Your task to perform on an android device: empty trash in the gmail app Image 0: 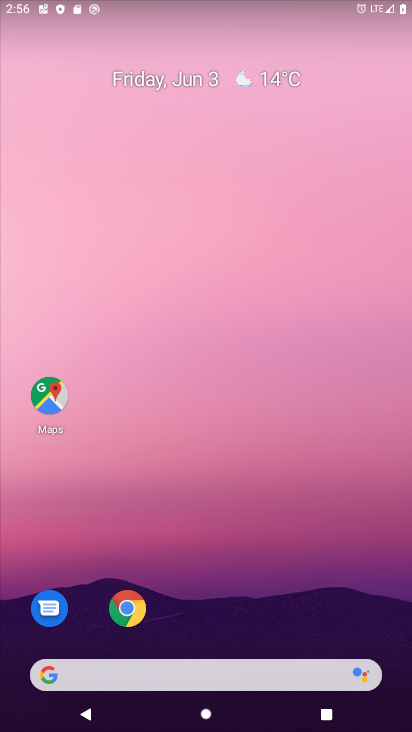
Step 0: drag from (164, 651) to (128, 52)
Your task to perform on an android device: empty trash in the gmail app Image 1: 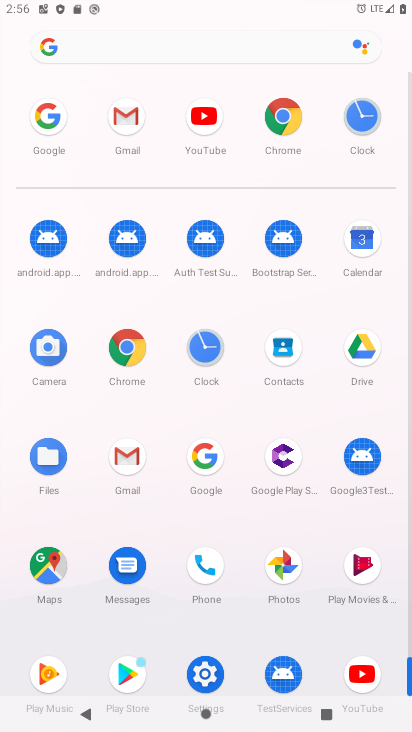
Step 1: click (122, 459)
Your task to perform on an android device: empty trash in the gmail app Image 2: 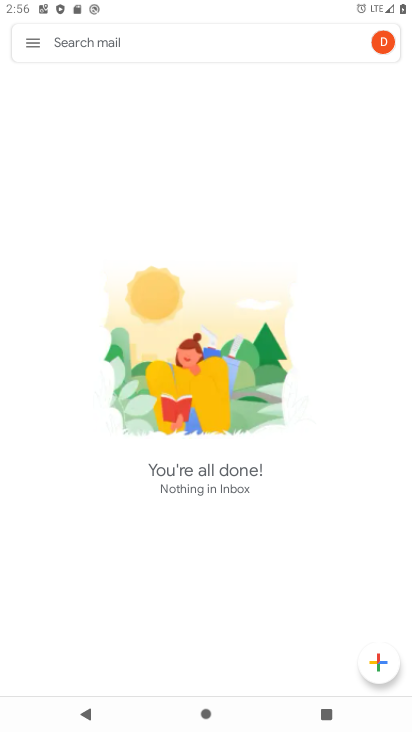
Step 2: click (33, 43)
Your task to perform on an android device: empty trash in the gmail app Image 3: 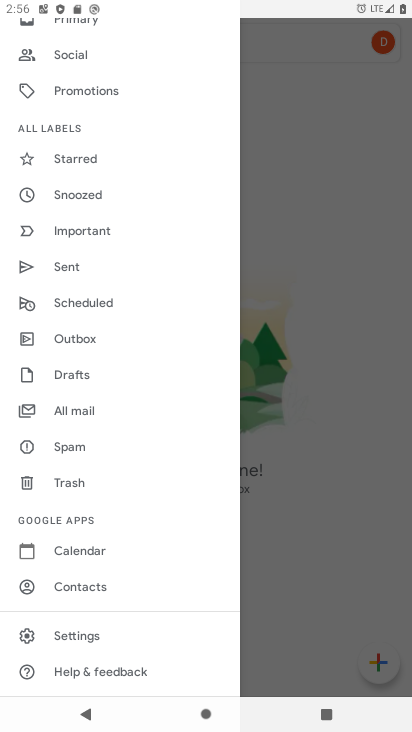
Step 3: click (74, 479)
Your task to perform on an android device: empty trash in the gmail app Image 4: 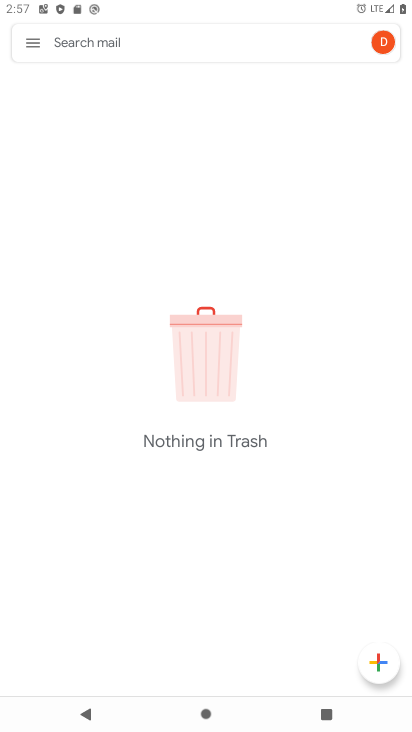
Step 4: task complete